Your task to perform on an android device: Look up the top rated 18v miter saw on Home Depot. Image 0: 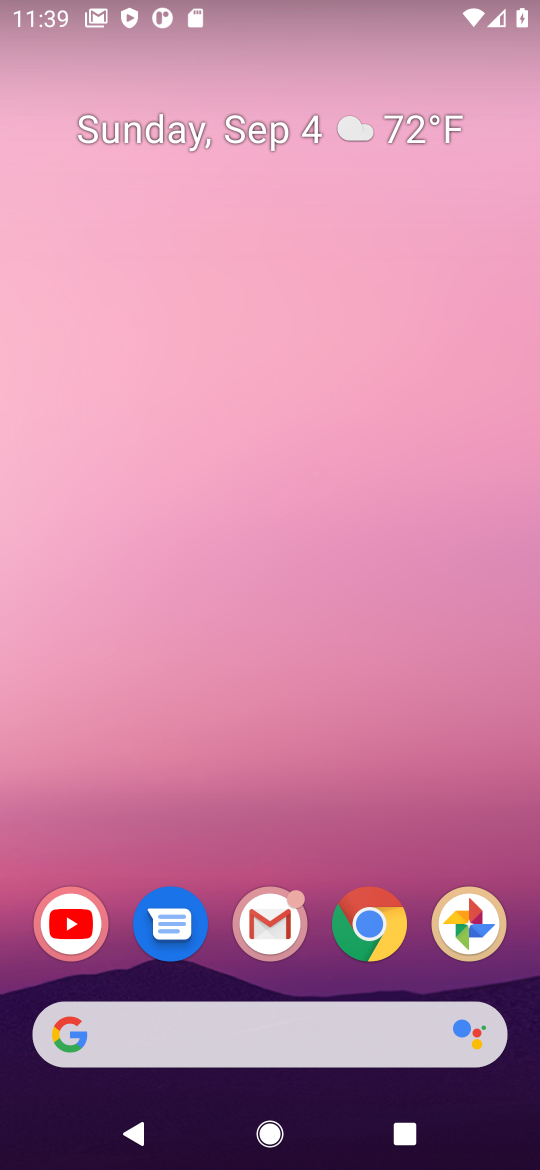
Step 0: press home button
Your task to perform on an android device: Look up the top rated 18v miter saw on Home Depot. Image 1: 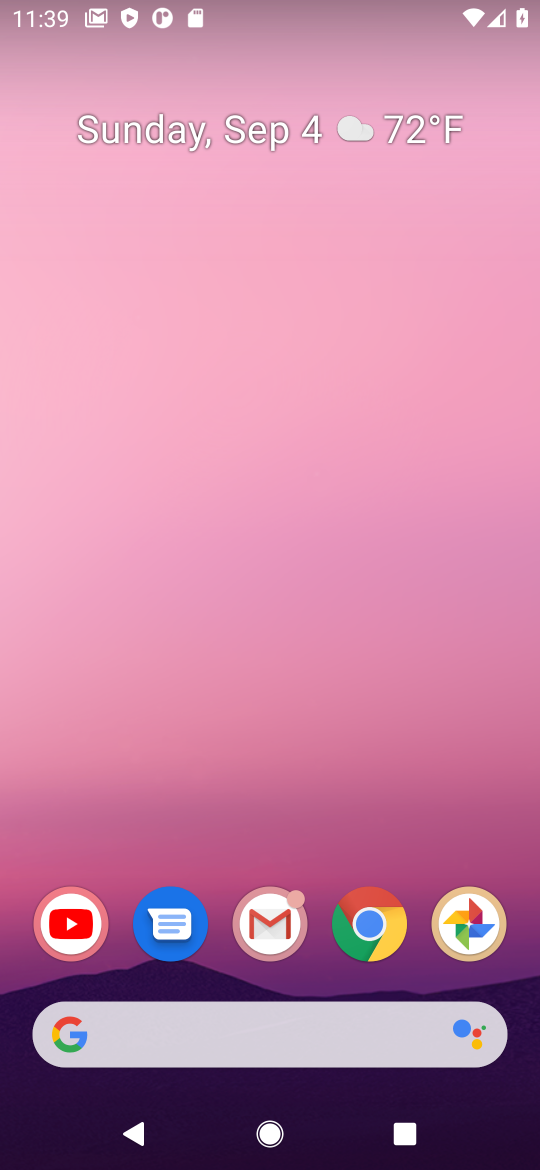
Step 1: click (370, 925)
Your task to perform on an android device: Look up the top rated 18v miter saw on Home Depot. Image 2: 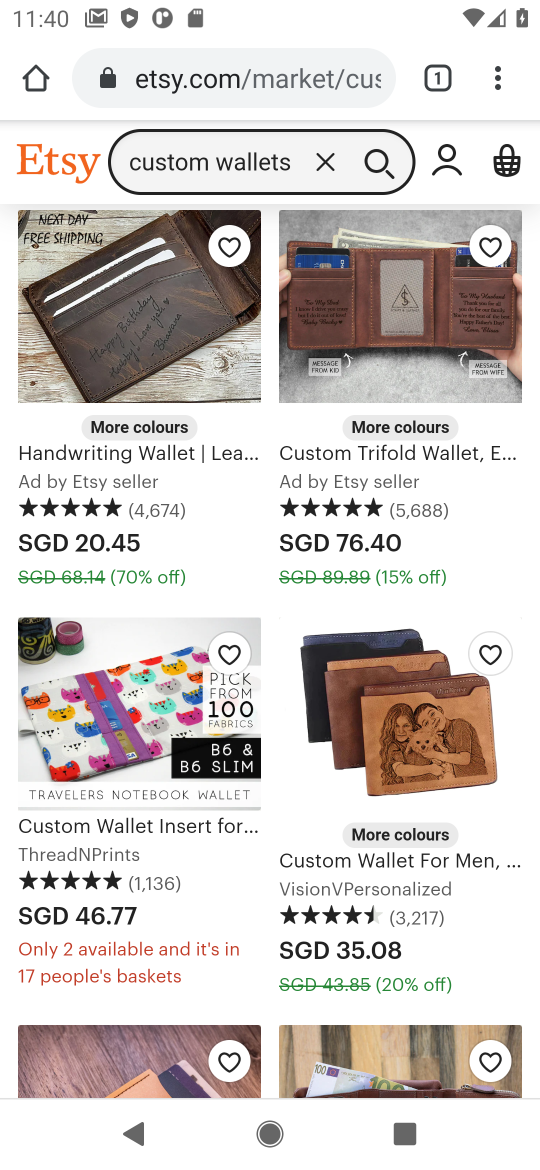
Step 2: click (300, 70)
Your task to perform on an android device: Look up the top rated 18v miter saw on Home Depot. Image 3: 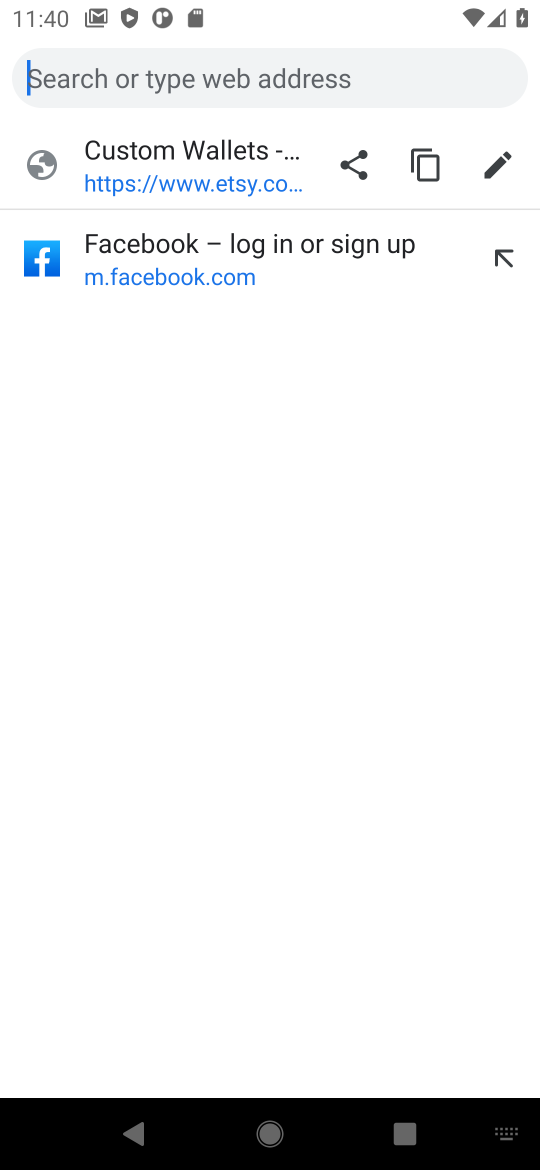
Step 3: click (134, 67)
Your task to perform on an android device: Look up the top rated 18v miter saw on Home Depot. Image 4: 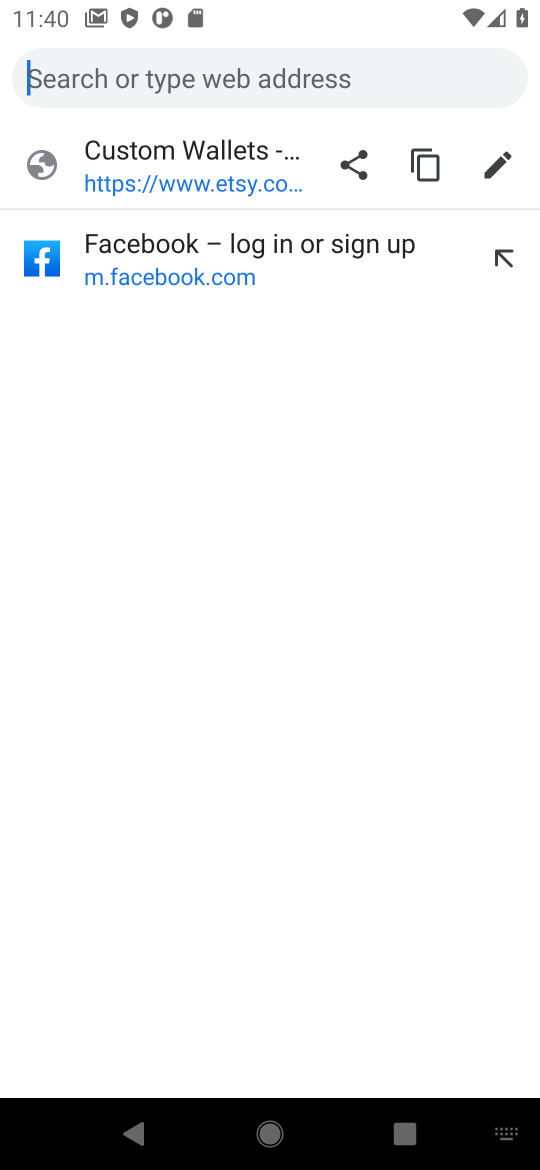
Step 4: click (147, 77)
Your task to perform on an android device: Look up the top rated 18v miter saw on Home Depot. Image 5: 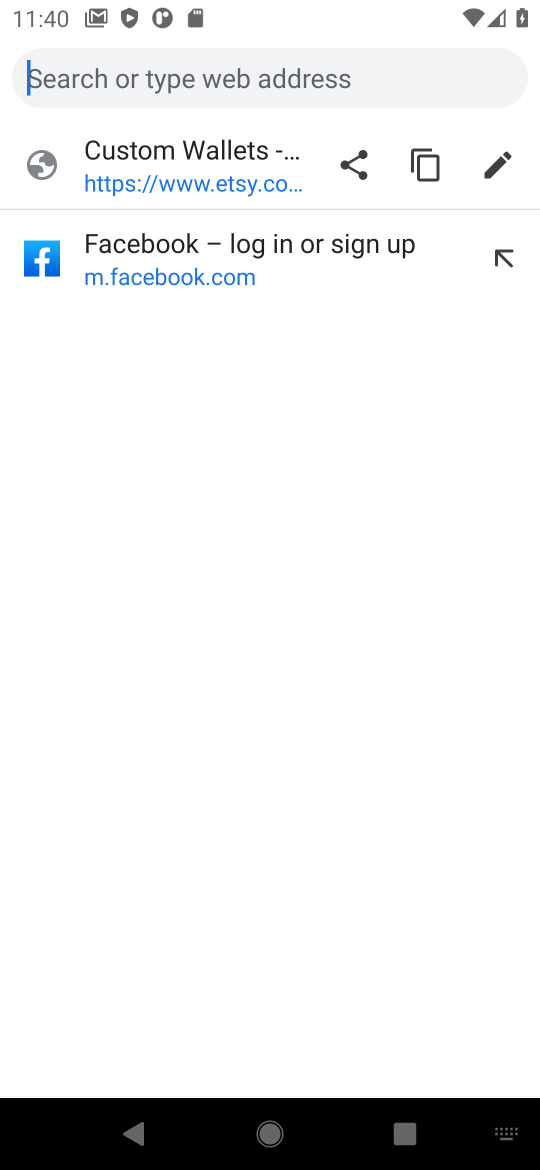
Step 5: type "top rated 18v miter saw on Home Depot"
Your task to perform on an android device: Look up the top rated 18v miter saw on Home Depot. Image 6: 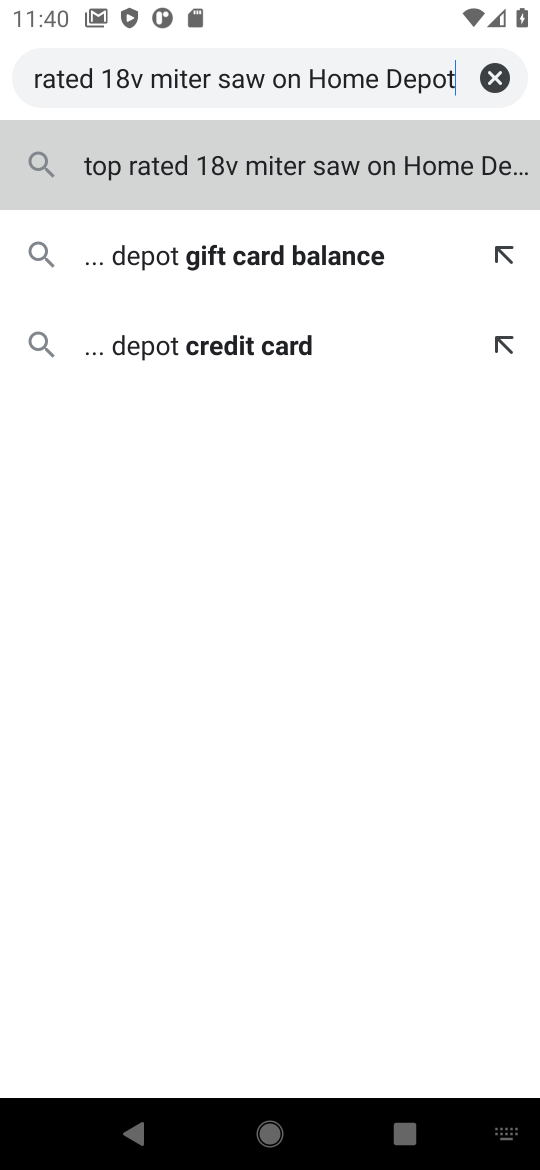
Step 6: click (284, 159)
Your task to perform on an android device: Look up the top rated 18v miter saw on Home Depot. Image 7: 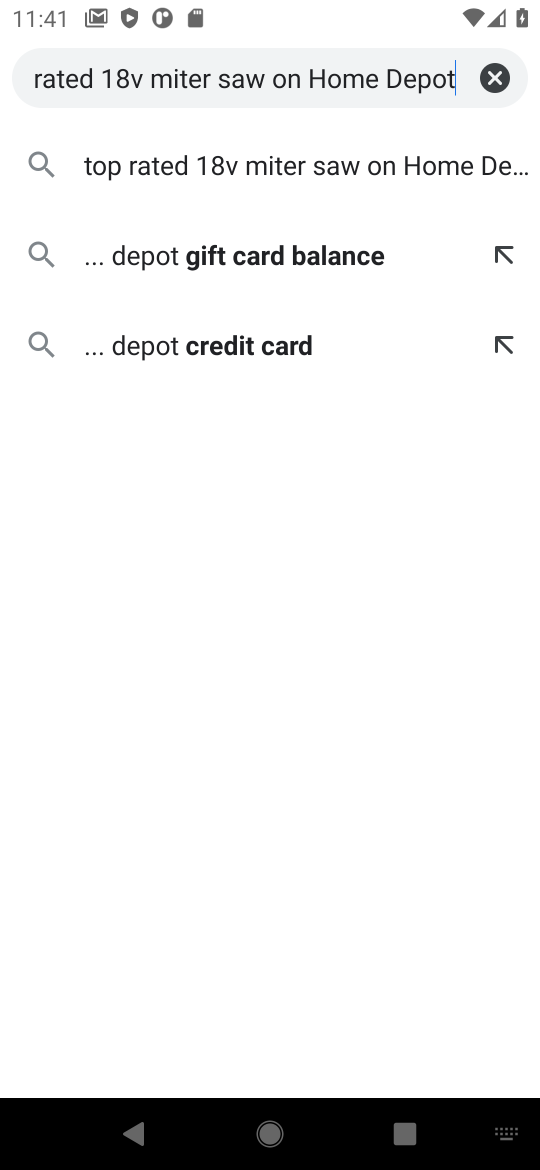
Step 7: click (179, 177)
Your task to perform on an android device: Look up the top rated 18v miter saw on Home Depot. Image 8: 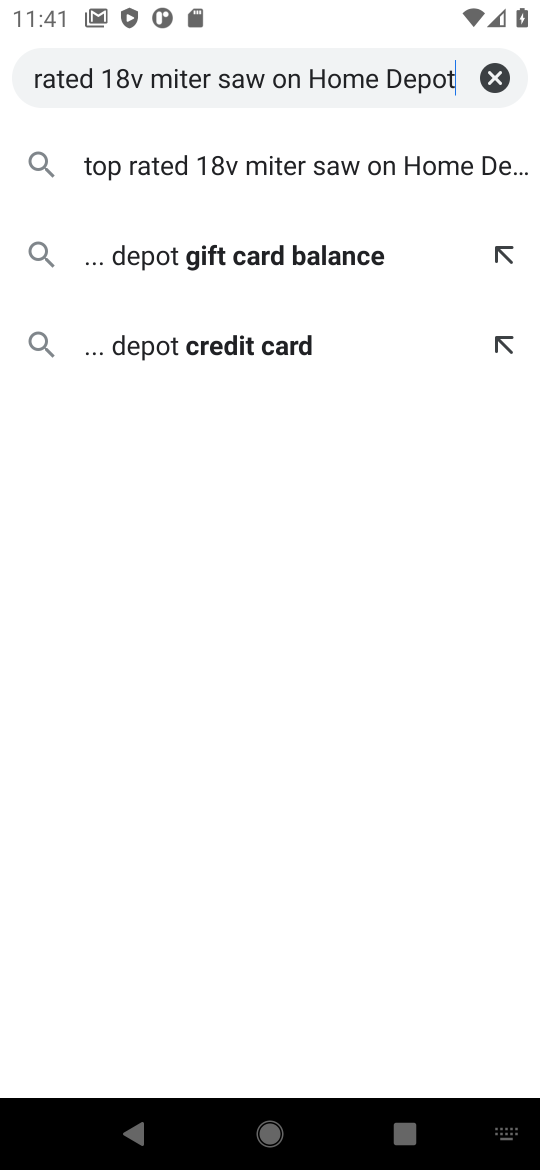
Step 8: click (344, 165)
Your task to perform on an android device: Look up the top rated 18v miter saw on Home Depot. Image 9: 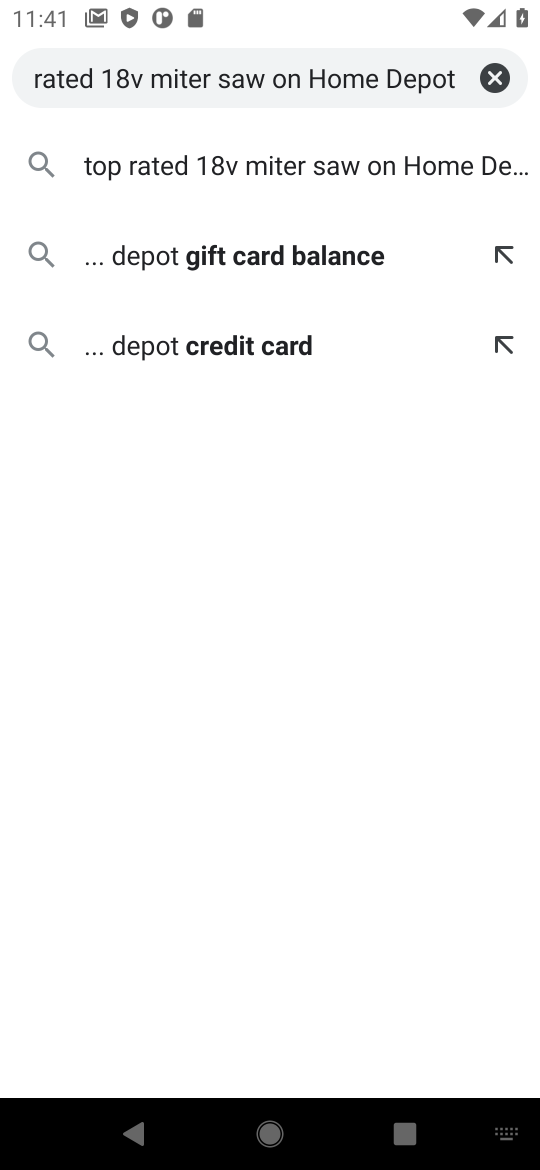
Step 9: click (251, 157)
Your task to perform on an android device: Look up the top rated 18v miter saw on Home Depot. Image 10: 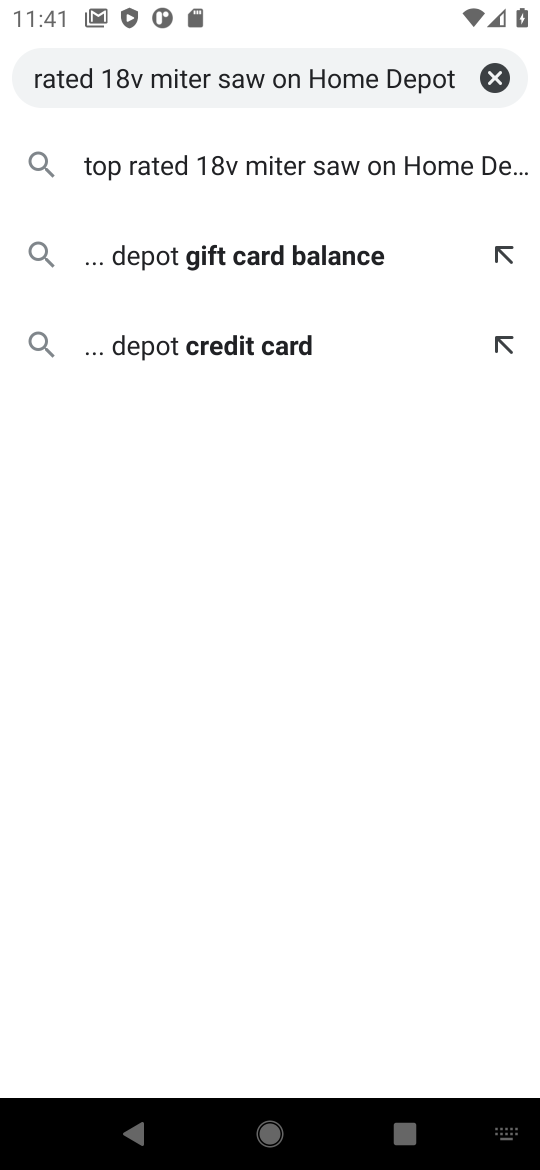
Step 10: click (346, 167)
Your task to perform on an android device: Look up the top rated 18v miter saw on Home Depot. Image 11: 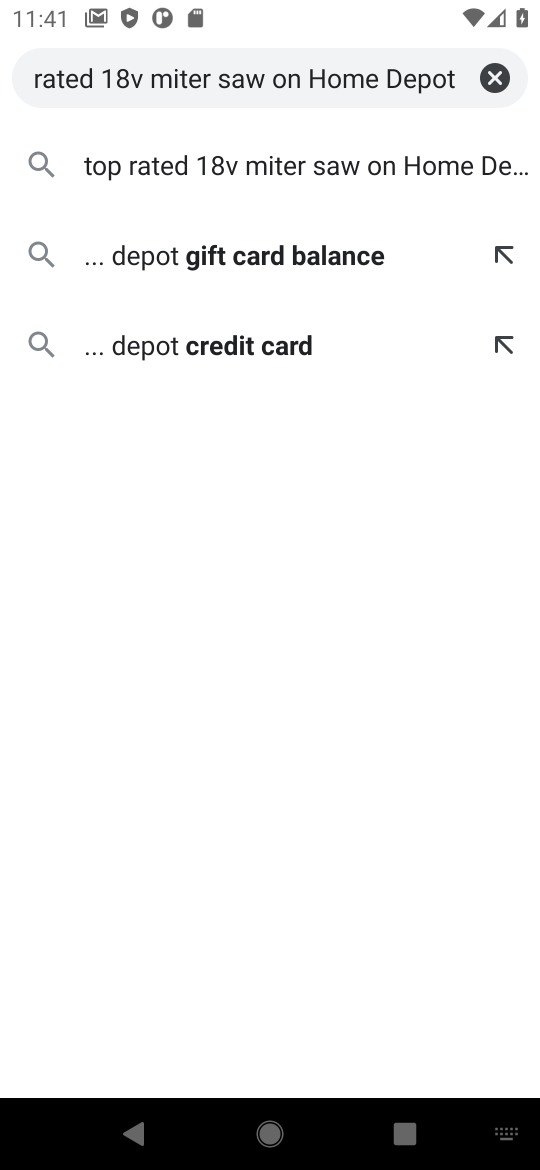
Step 11: click (293, 162)
Your task to perform on an android device: Look up the top rated 18v miter saw on Home Depot. Image 12: 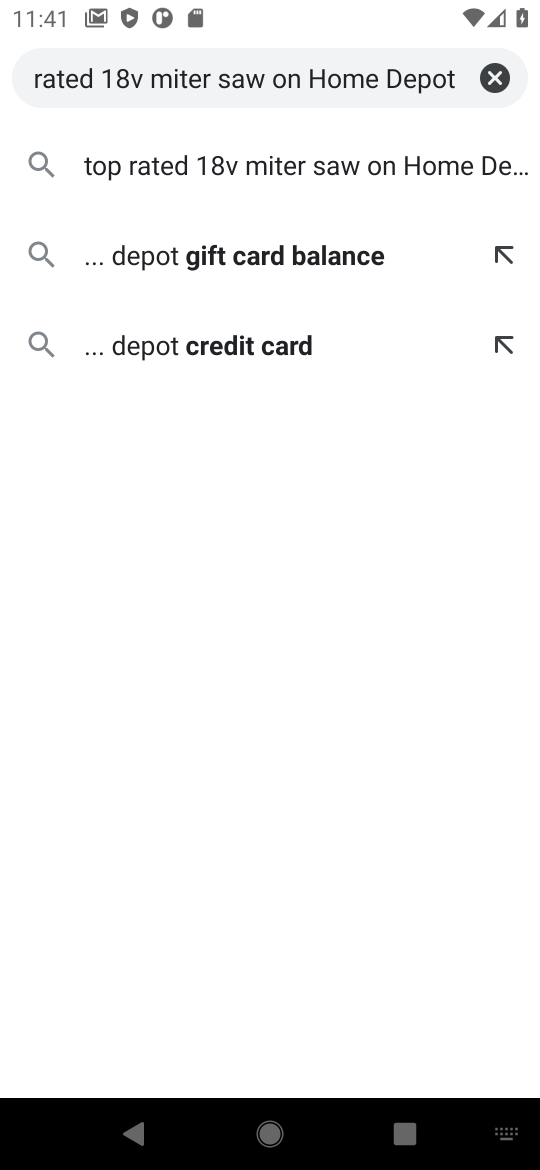
Step 12: click (267, 168)
Your task to perform on an android device: Look up the top rated 18v miter saw on Home Depot. Image 13: 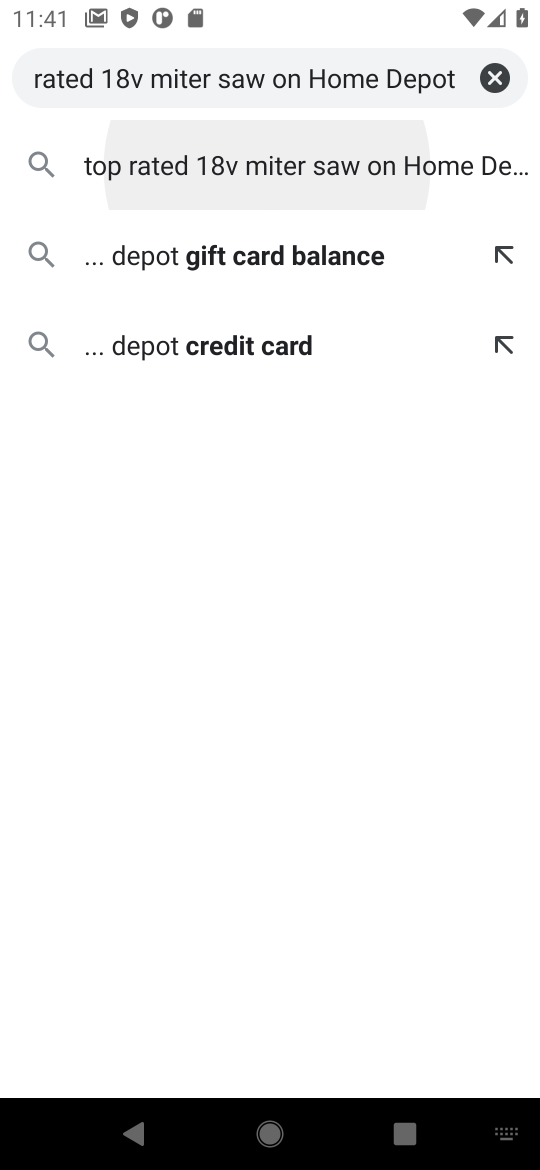
Step 13: task complete